Your task to perform on an android device: Open location settings Image 0: 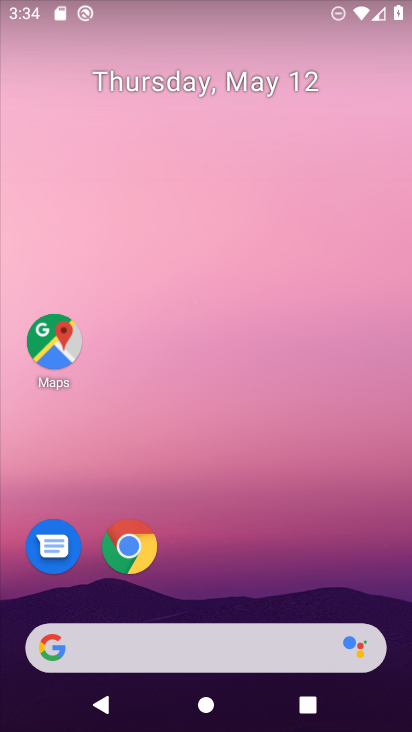
Step 0: drag from (279, 550) to (279, 264)
Your task to perform on an android device: Open location settings Image 1: 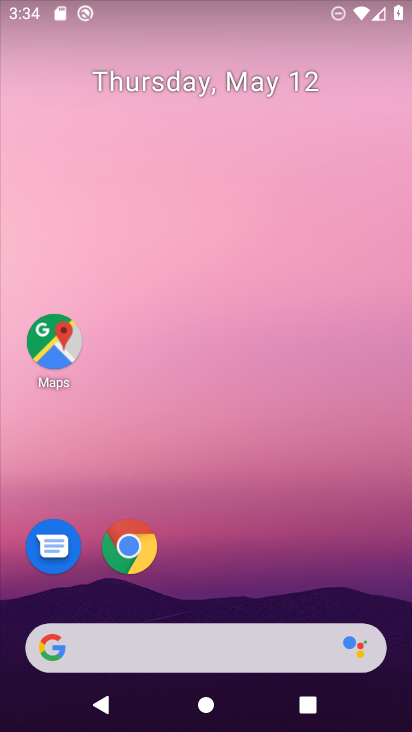
Step 1: drag from (258, 564) to (256, 301)
Your task to perform on an android device: Open location settings Image 2: 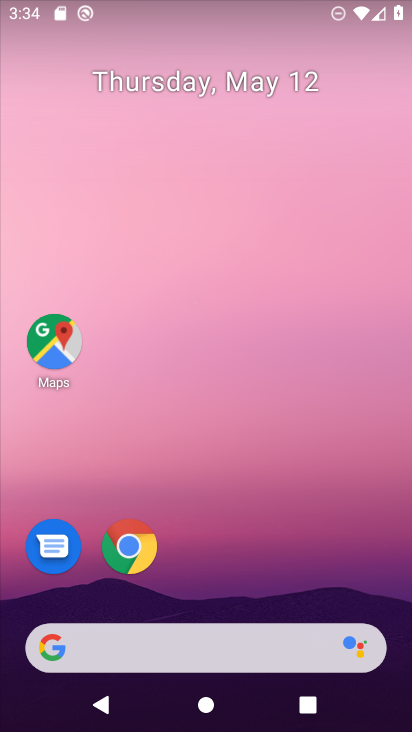
Step 2: drag from (263, 599) to (249, 212)
Your task to perform on an android device: Open location settings Image 3: 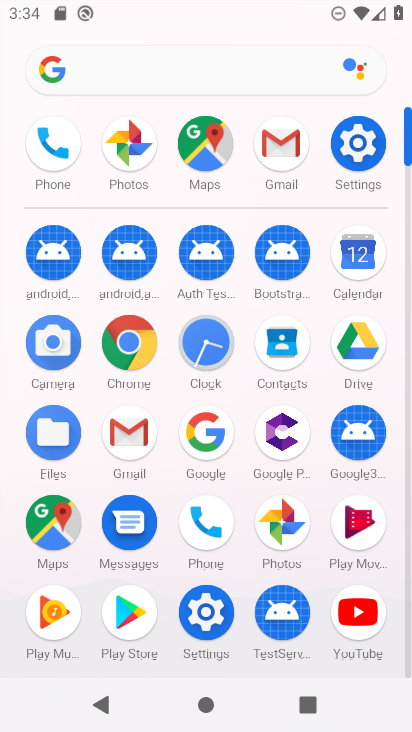
Step 3: click (350, 144)
Your task to perform on an android device: Open location settings Image 4: 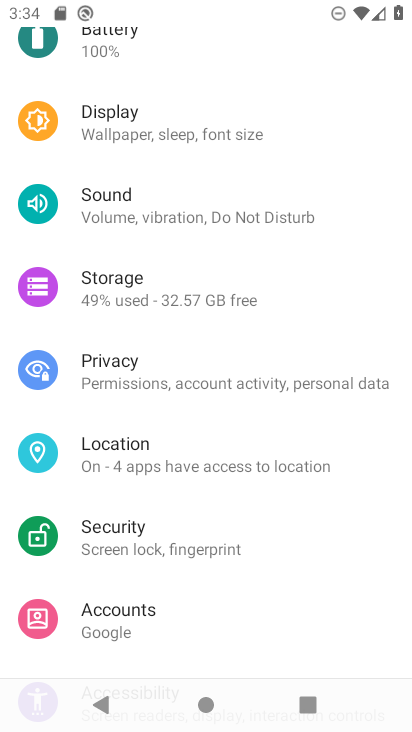
Step 4: click (146, 462)
Your task to perform on an android device: Open location settings Image 5: 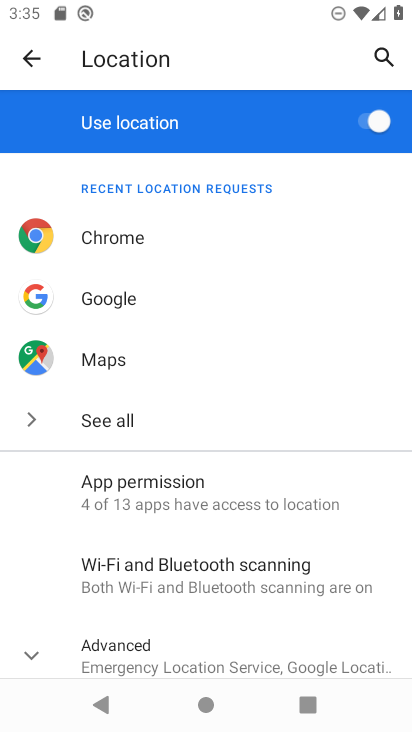
Step 5: task complete